Your task to perform on an android device: change the clock display to digital Image 0: 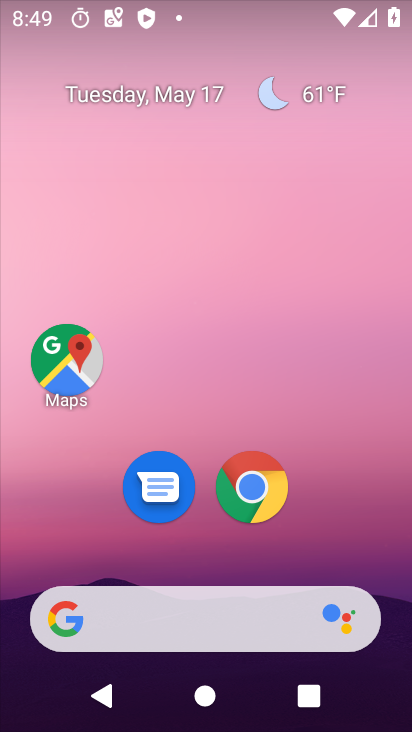
Step 0: press home button
Your task to perform on an android device: change the clock display to digital Image 1: 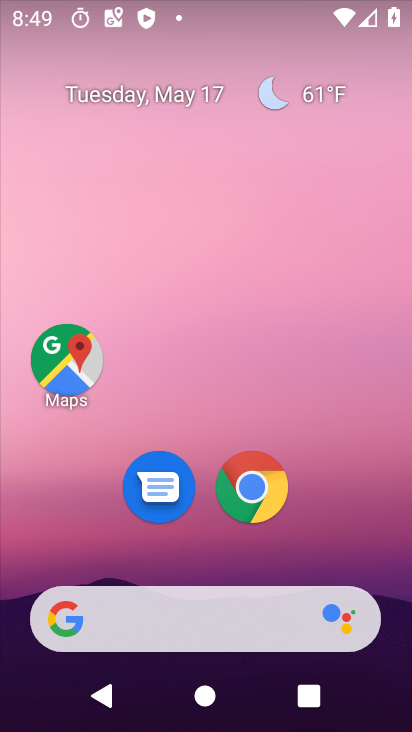
Step 1: drag from (169, 612) to (271, 182)
Your task to perform on an android device: change the clock display to digital Image 2: 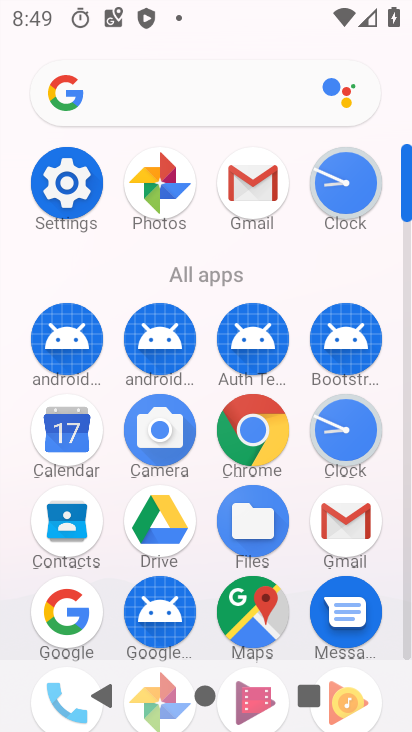
Step 2: click (349, 437)
Your task to perform on an android device: change the clock display to digital Image 3: 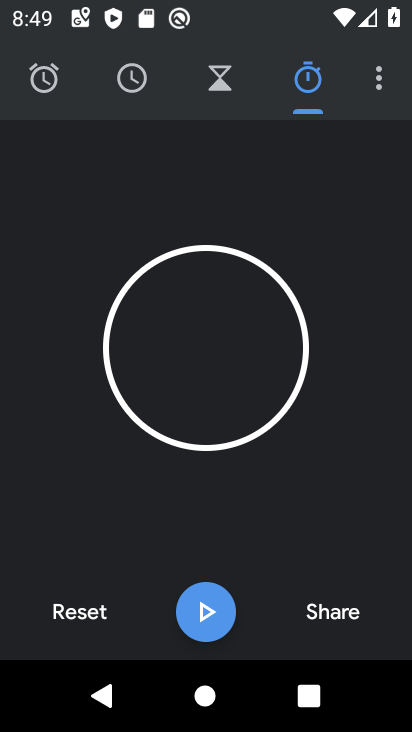
Step 3: click (380, 84)
Your task to perform on an android device: change the clock display to digital Image 4: 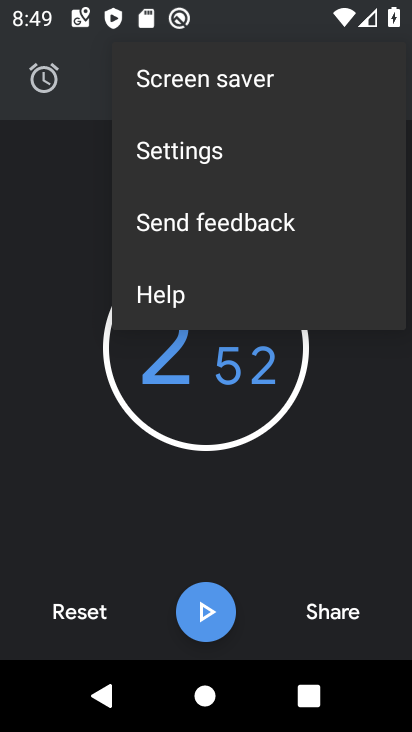
Step 4: click (214, 149)
Your task to perform on an android device: change the clock display to digital Image 5: 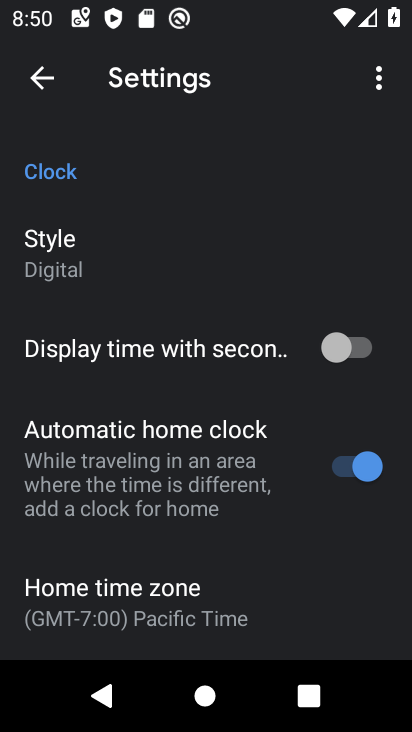
Step 5: task complete